Your task to perform on an android device: change the clock display to show seconds Image 0: 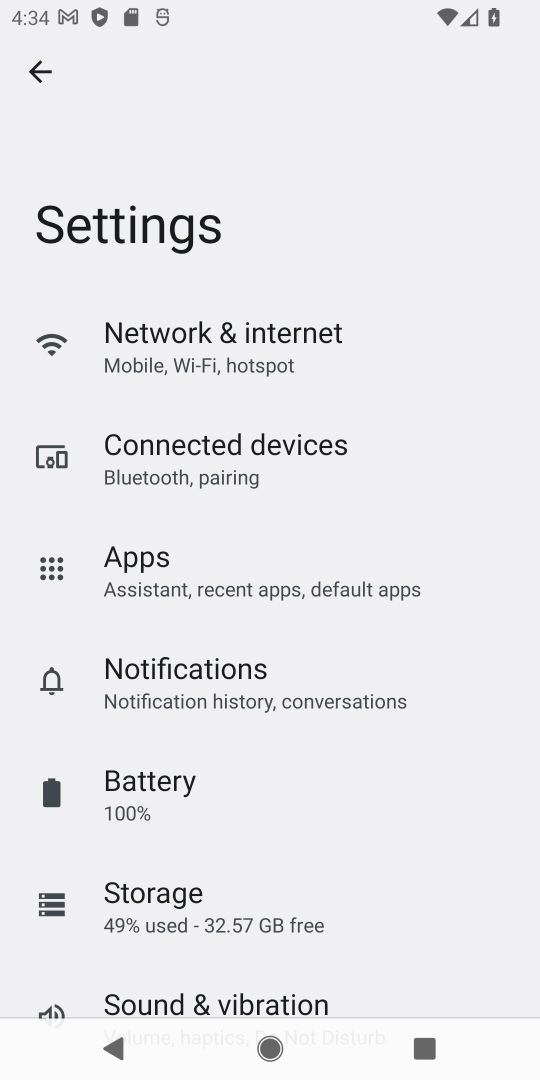
Step 0: press home button
Your task to perform on an android device: change the clock display to show seconds Image 1: 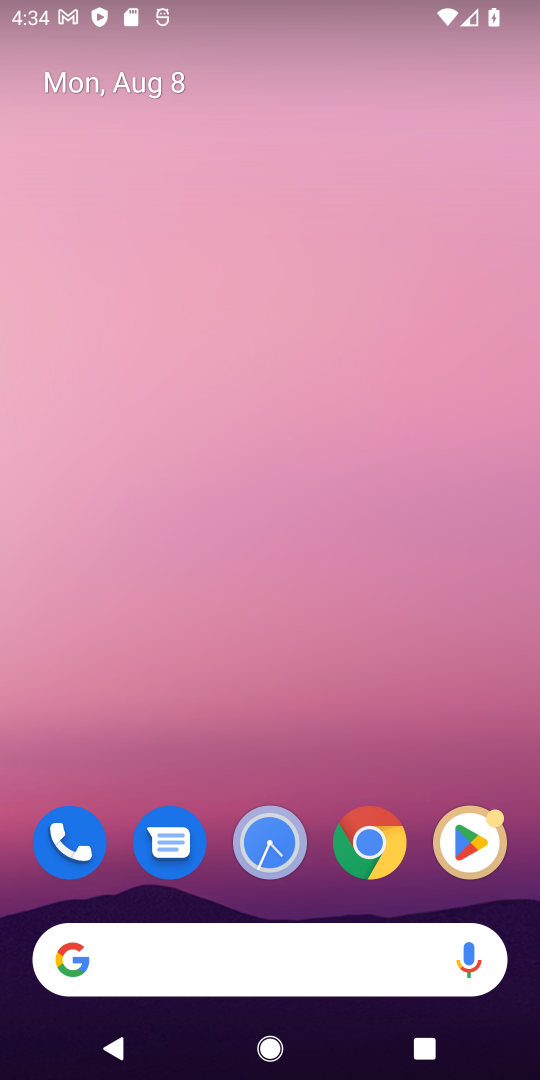
Step 1: click (277, 827)
Your task to perform on an android device: change the clock display to show seconds Image 2: 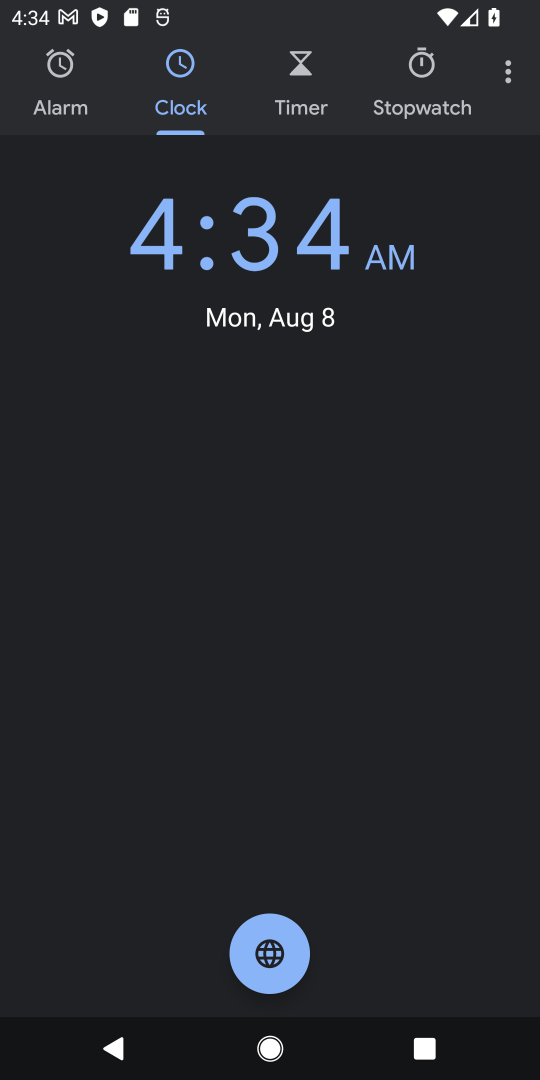
Step 2: click (513, 64)
Your task to perform on an android device: change the clock display to show seconds Image 3: 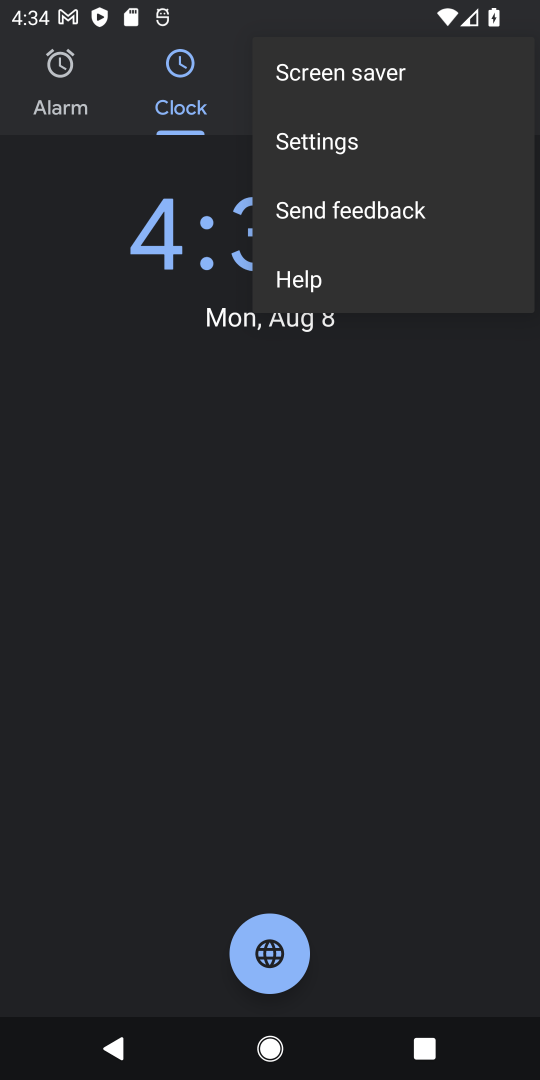
Step 3: click (314, 145)
Your task to perform on an android device: change the clock display to show seconds Image 4: 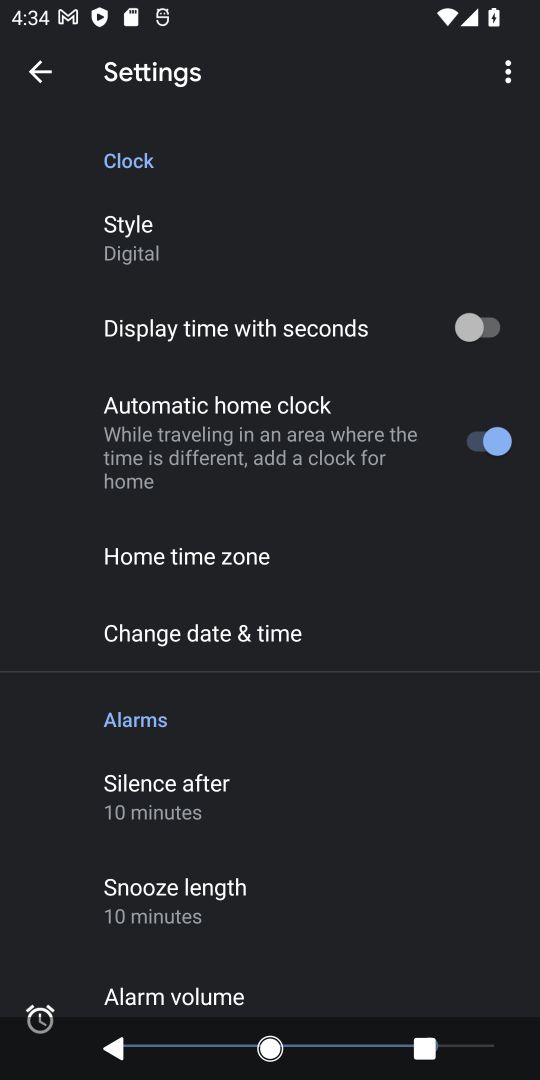
Step 4: click (488, 321)
Your task to perform on an android device: change the clock display to show seconds Image 5: 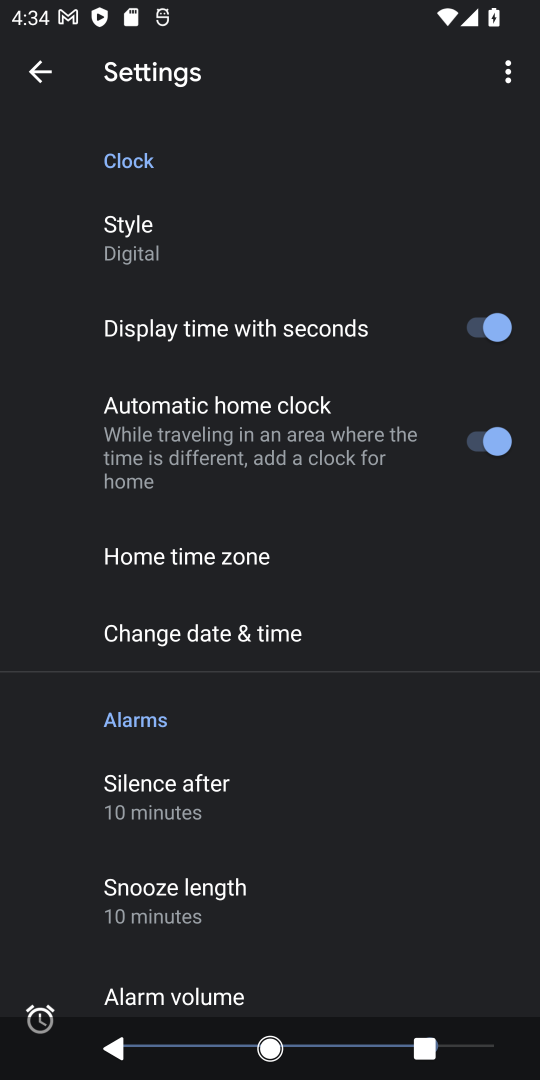
Step 5: task complete